Your task to perform on an android device: turn on the 24-hour format for clock Image 0: 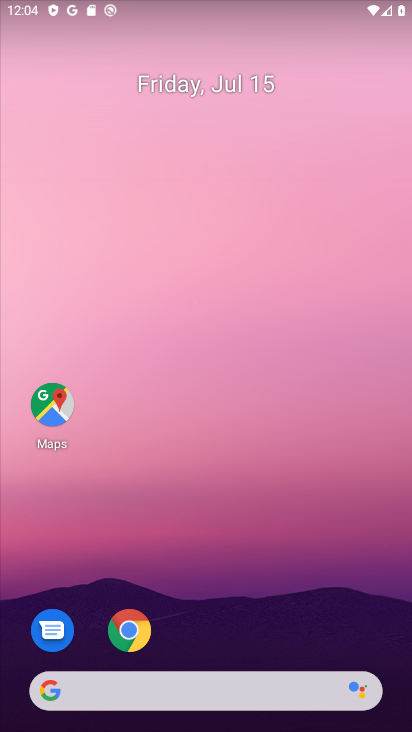
Step 0: drag from (297, 641) to (265, 241)
Your task to perform on an android device: turn on the 24-hour format for clock Image 1: 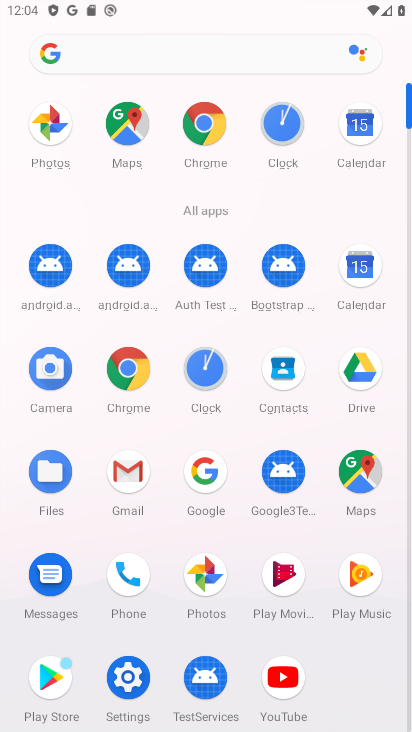
Step 1: click (287, 150)
Your task to perform on an android device: turn on the 24-hour format for clock Image 2: 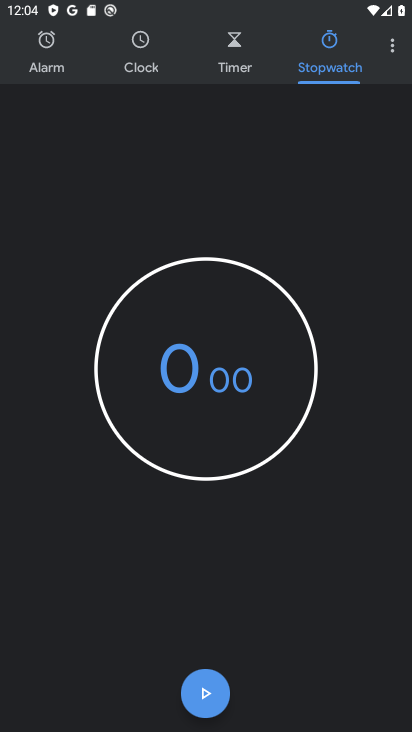
Step 2: click (386, 49)
Your task to perform on an android device: turn on the 24-hour format for clock Image 3: 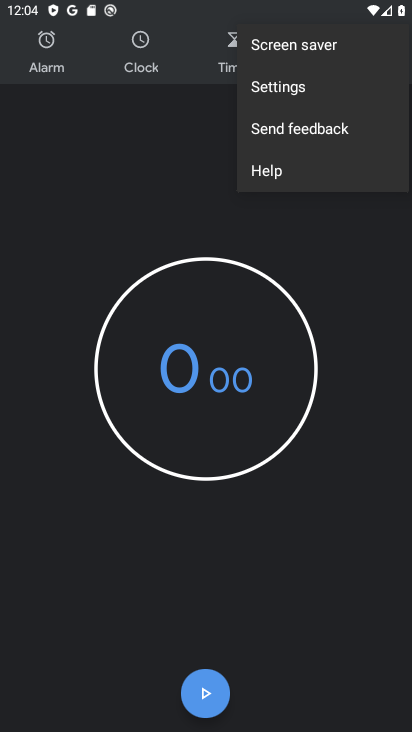
Step 3: click (303, 94)
Your task to perform on an android device: turn on the 24-hour format for clock Image 4: 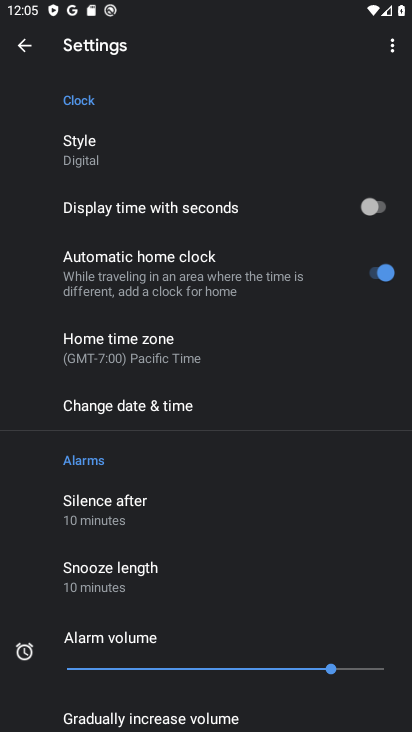
Step 4: click (112, 415)
Your task to perform on an android device: turn on the 24-hour format for clock Image 5: 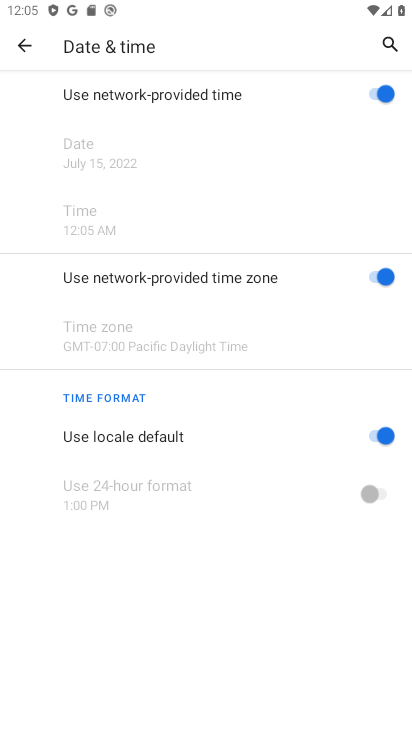
Step 5: click (376, 440)
Your task to perform on an android device: turn on the 24-hour format for clock Image 6: 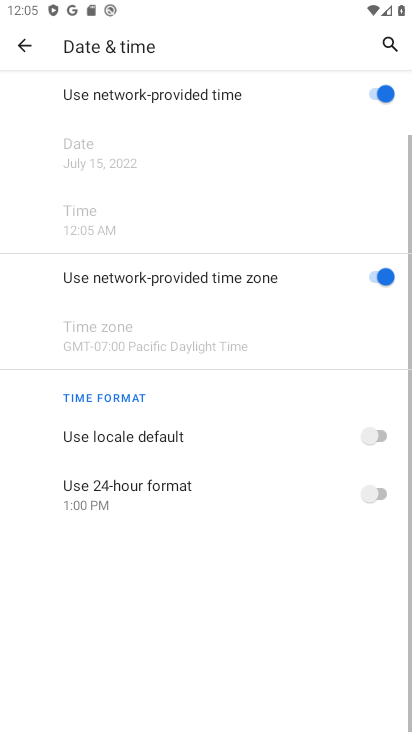
Step 6: click (376, 500)
Your task to perform on an android device: turn on the 24-hour format for clock Image 7: 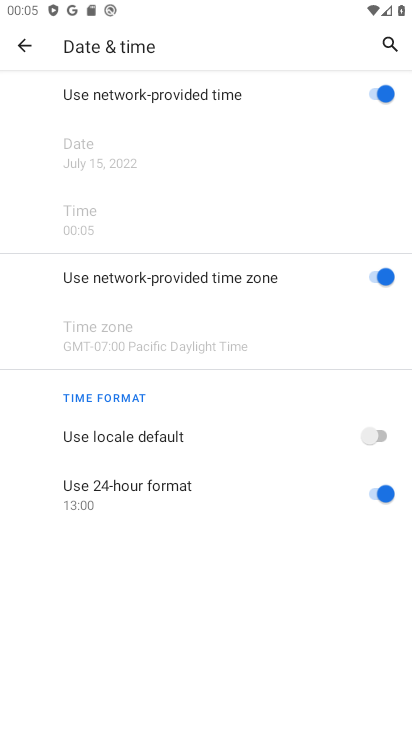
Step 7: task complete